Your task to perform on an android device: Go to Google Image 0: 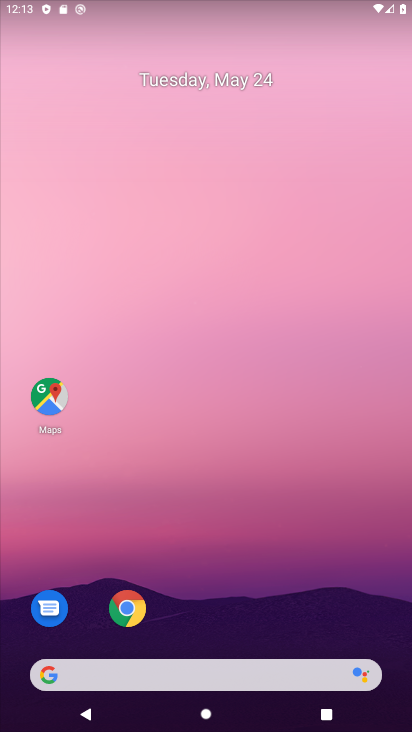
Step 0: drag from (271, 246) to (292, 156)
Your task to perform on an android device: Go to Google Image 1: 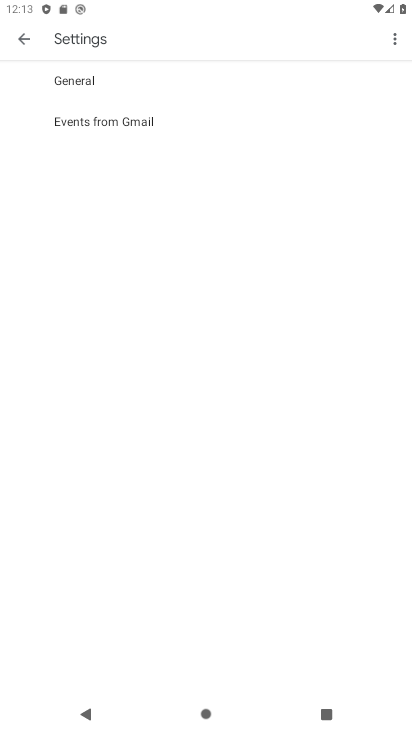
Step 1: press home button
Your task to perform on an android device: Go to Google Image 2: 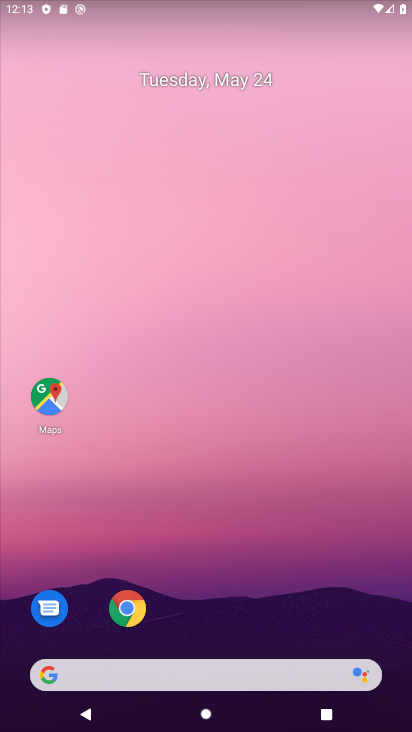
Step 2: drag from (255, 263) to (269, 0)
Your task to perform on an android device: Go to Google Image 3: 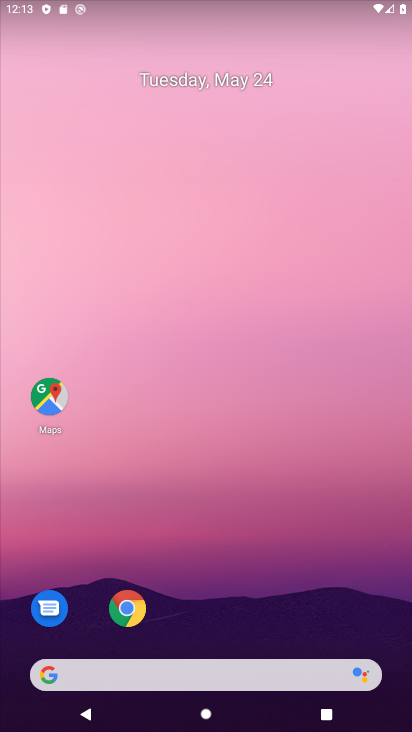
Step 3: drag from (250, 519) to (243, 27)
Your task to perform on an android device: Go to Google Image 4: 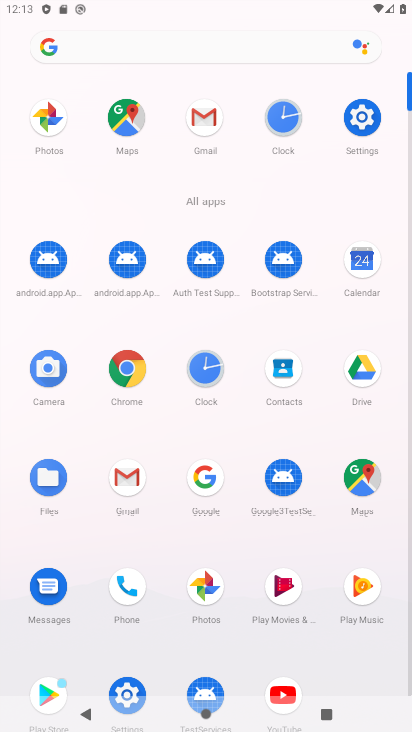
Step 4: click (210, 485)
Your task to perform on an android device: Go to Google Image 5: 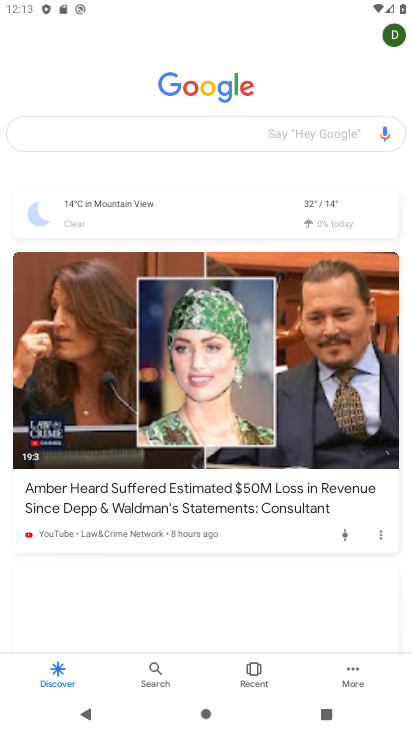
Step 5: task complete